Your task to perform on an android device: Search for Mexican restaurants on Maps Image 0: 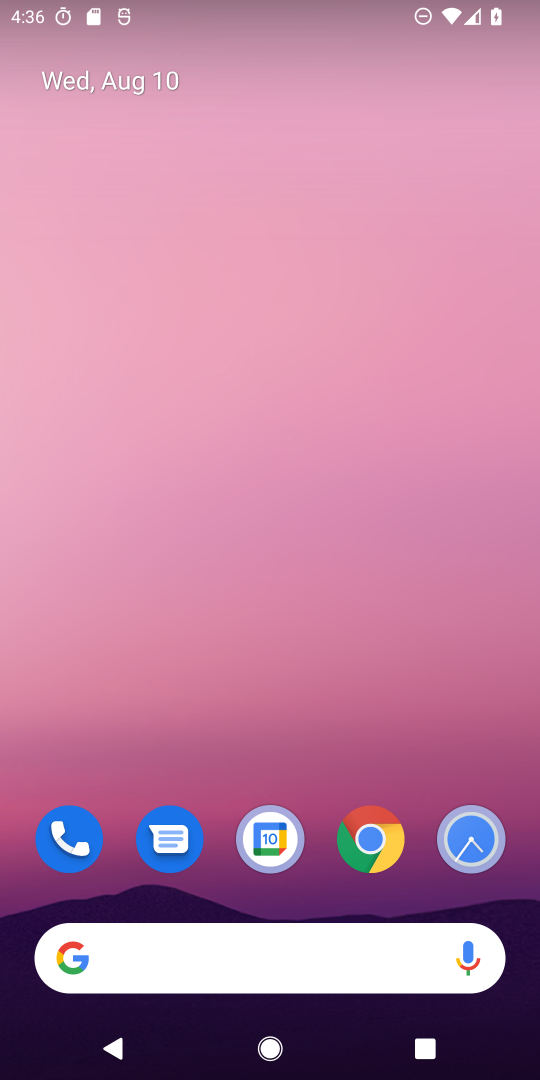
Step 0: drag from (33, 1015) to (493, 245)
Your task to perform on an android device: Search for Mexican restaurants on Maps Image 1: 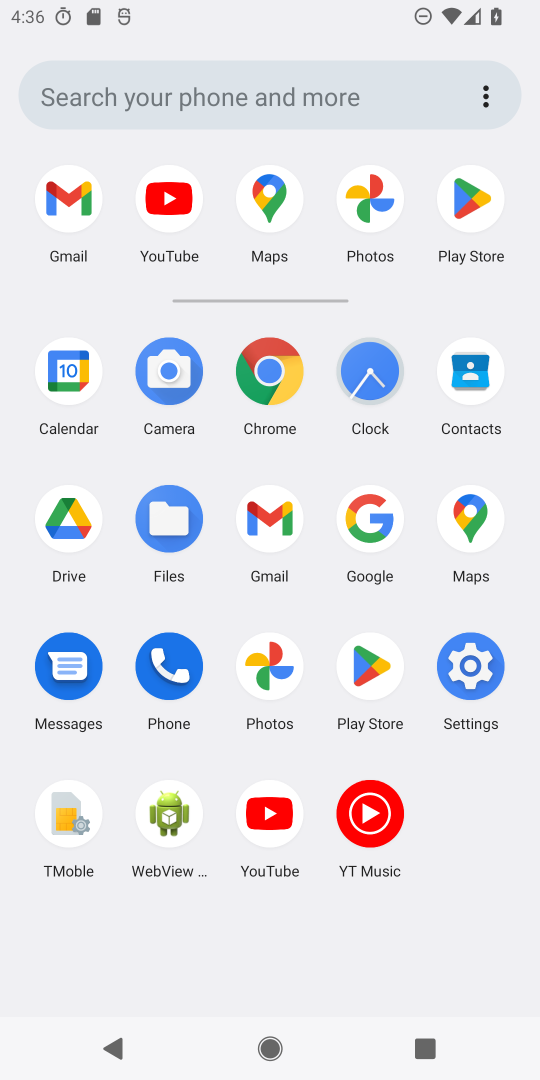
Step 1: click (448, 543)
Your task to perform on an android device: Search for Mexican restaurants on Maps Image 2: 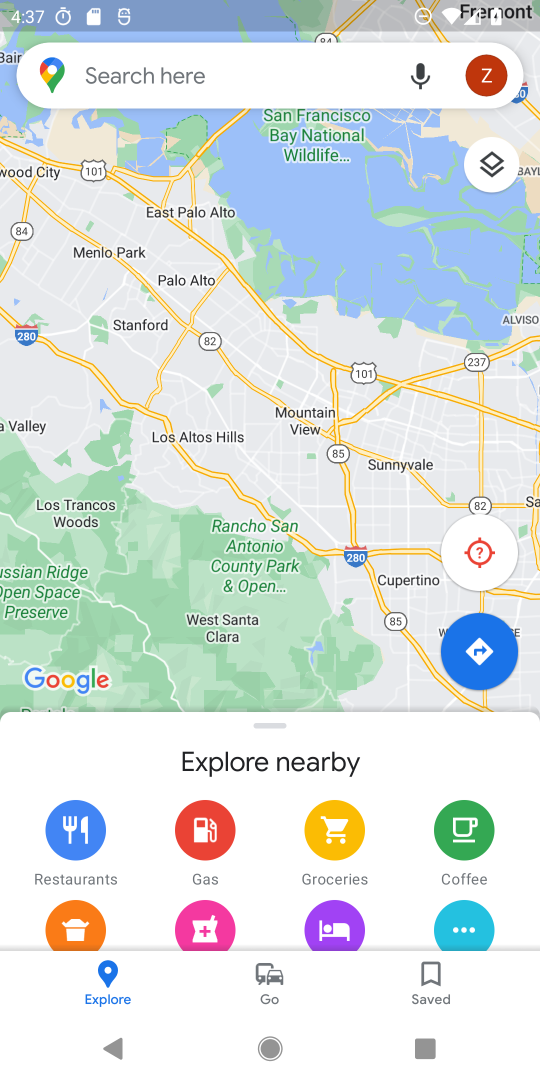
Step 2: click (137, 71)
Your task to perform on an android device: Search for Mexican restaurants on Maps Image 3: 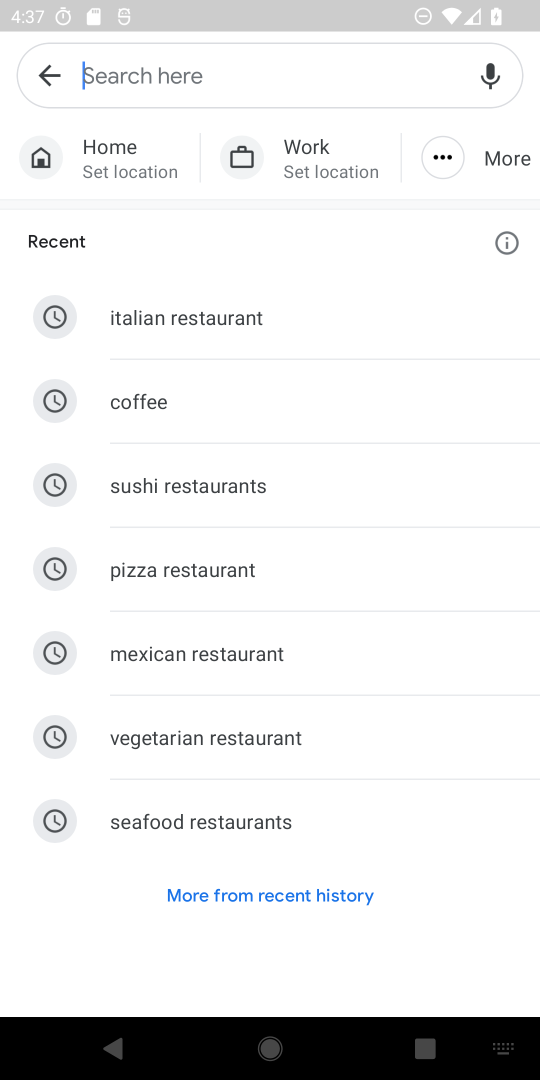
Step 3: type "Mexican restaurants"
Your task to perform on an android device: Search for Mexican restaurants on Maps Image 4: 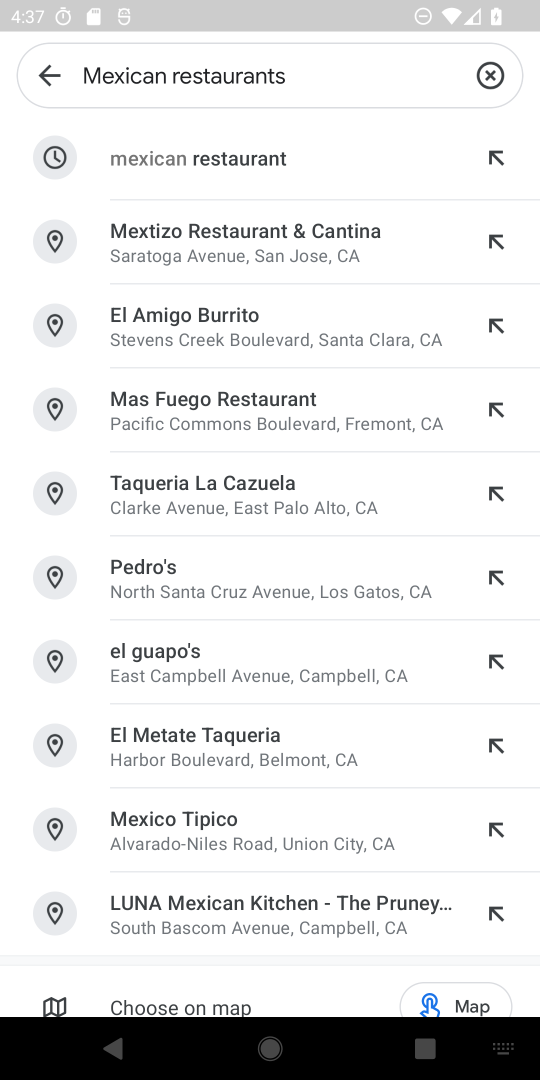
Step 4: click (222, 175)
Your task to perform on an android device: Search for Mexican restaurants on Maps Image 5: 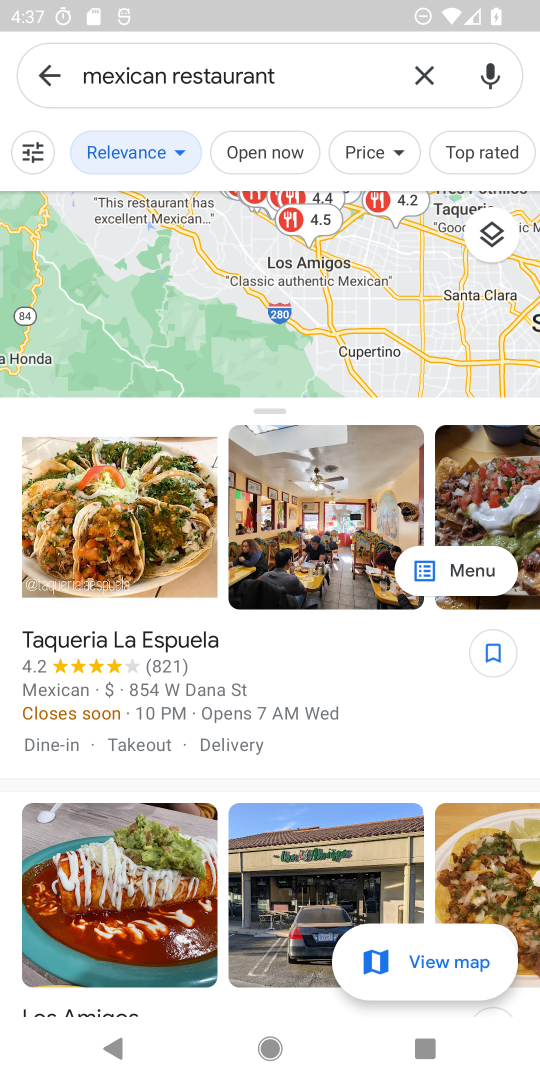
Step 5: task complete